Your task to perform on an android device: Go to internet settings Image 0: 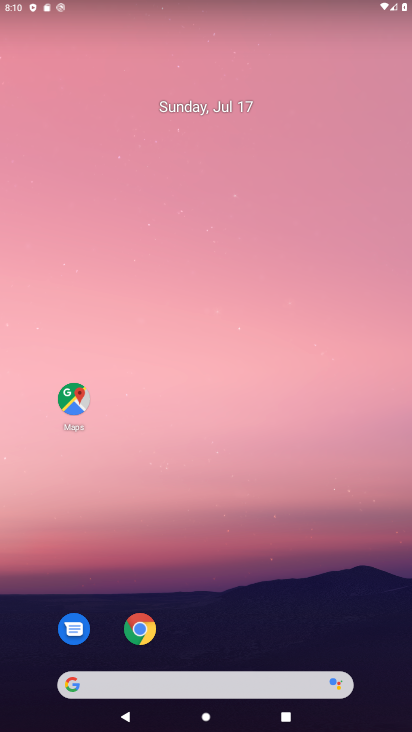
Step 0: drag from (198, 571) to (184, 257)
Your task to perform on an android device: Go to internet settings Image 1: 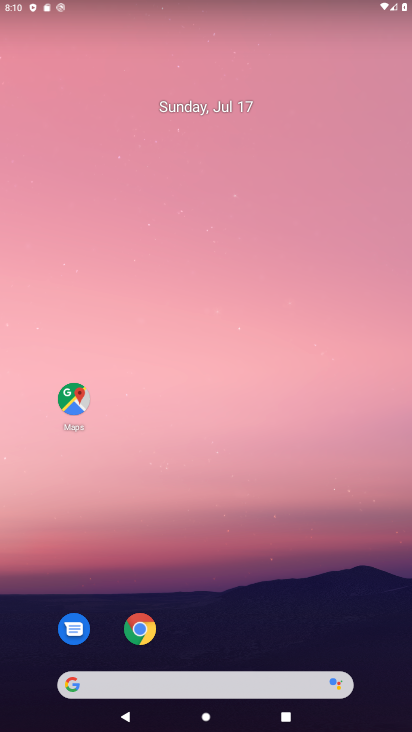
Step 1: drag from (241, 723) to (218, 62)
Your task to perform on an android device: Go to internet settings Image 2: 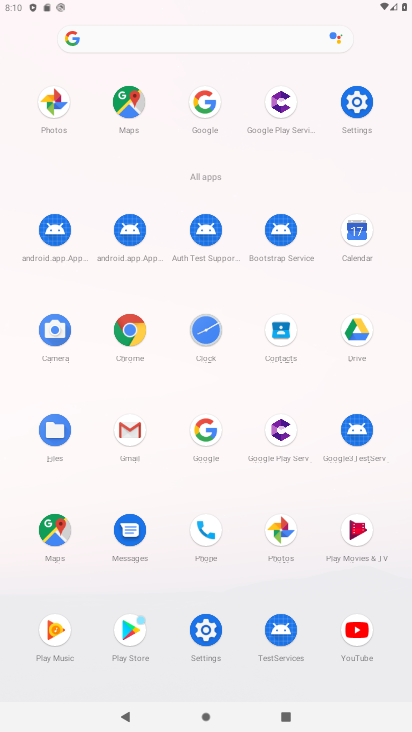
Step 2: click (360, 103)
Your task to perform on an android device: Go to internet settings Image 3: 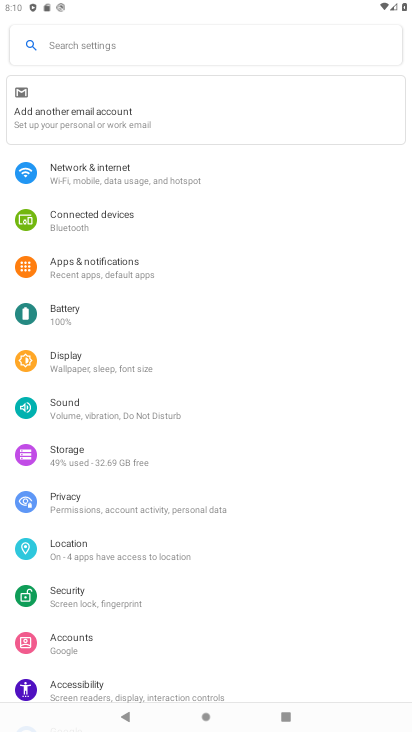
Step 3: click (99, 175)
Your task to perform on an android device: Go to internet settings Image 4: 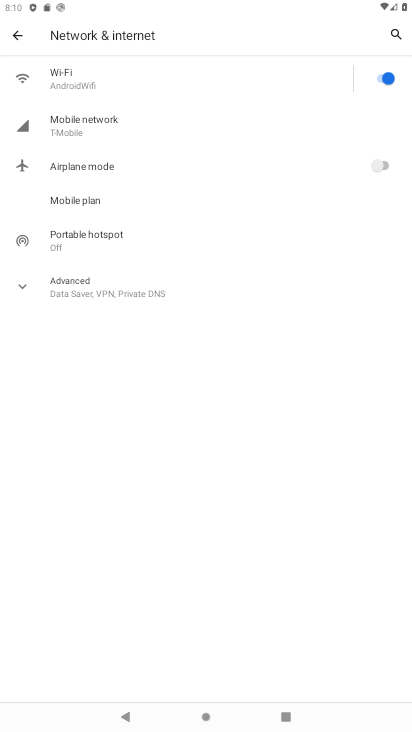
Step 4: task complete